Your task to perform on an android device: add a contact in the contacts app Image 0: 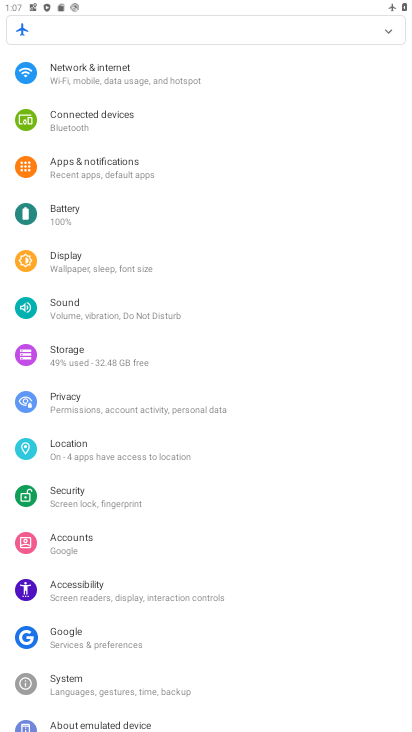
Step 0: press home button
Your task to perform on an android device: add a contact in the contacts app Image 1: 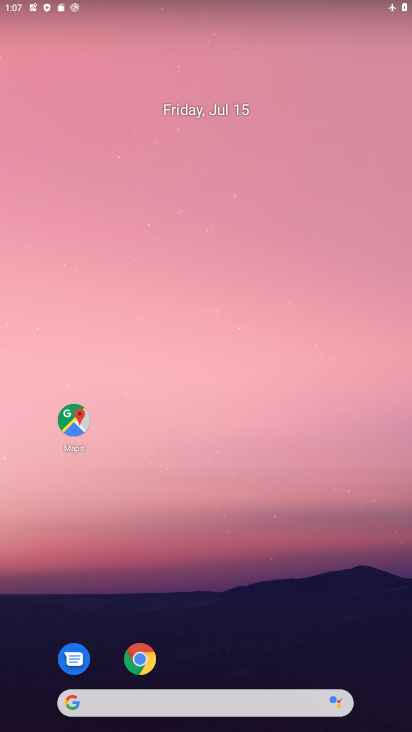
Step 1: drag from (197, 662) to (143, 288)
Your task to perform on an android device: add a contact in the contacts app Image 2: 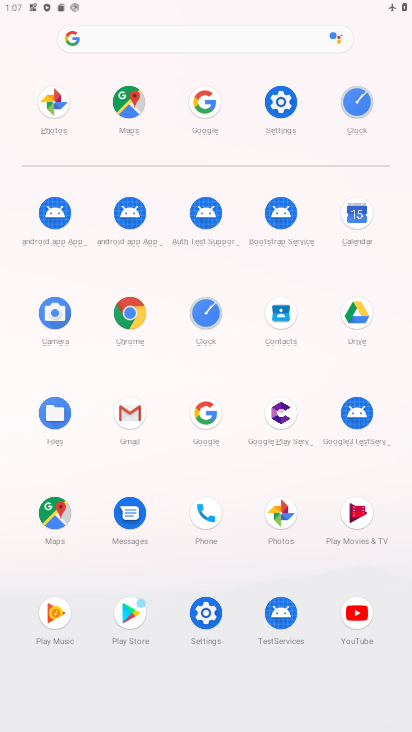
Step 2: click (280, 328)
Your task to perform on an android device: add a contact in the contacts app Image 3: 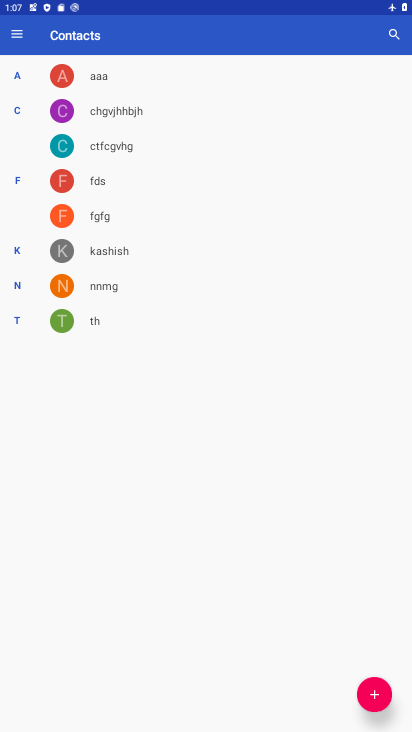
Step 3: click (380, 692)
Your task to perform on an android device: add a contact in the contacts app Image 4: 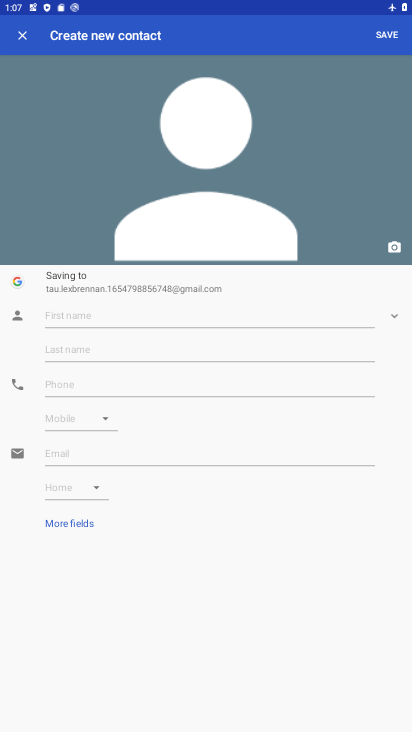
Step 4: click (86, 314)
Your task to perform on an android device: add a contact in the contacts app Image 5: 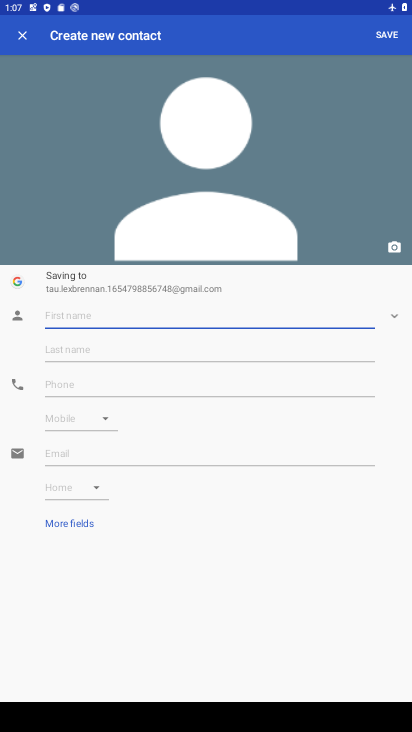
Step 5: type "fghfgh"
Your task to perform on an android device: add a contact in the contacts app Image 6: 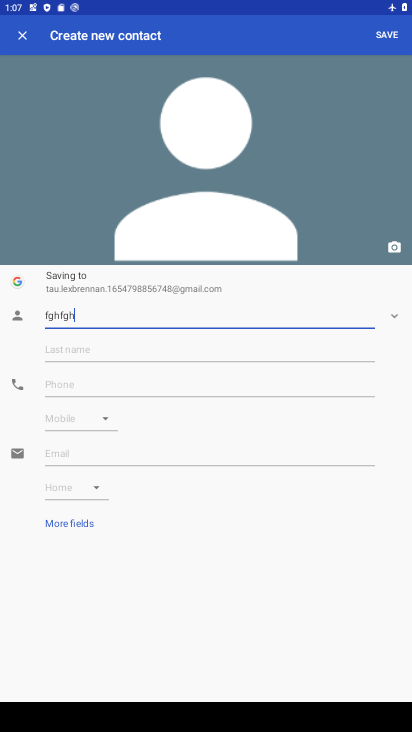
Step 6: click (211, 386)
Your task to perform on an android device: add a contact in the contacts app Image 7: 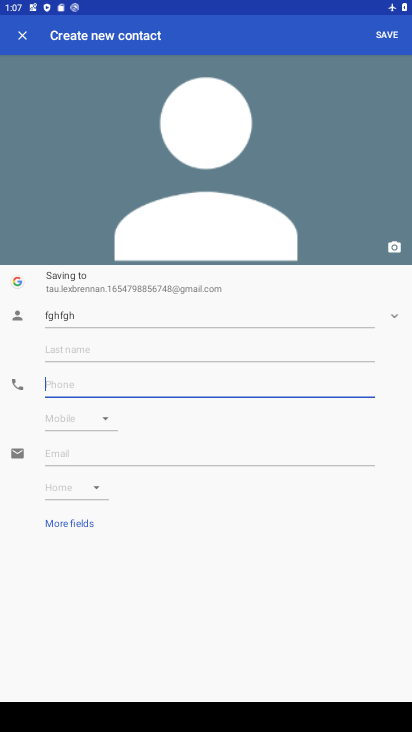
Step 7: type "8"
Your task to perform on an android device: add a contact in the contacts app Image 8: 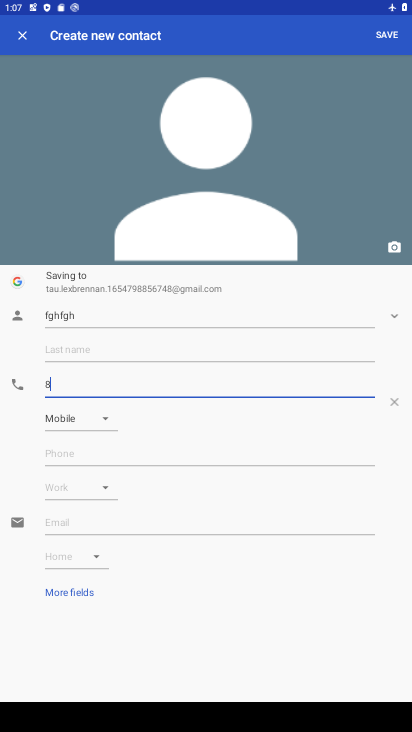
Step 8: type "5686868"
Your task to perform on an android device: add a contact in the contacts app Image 9: 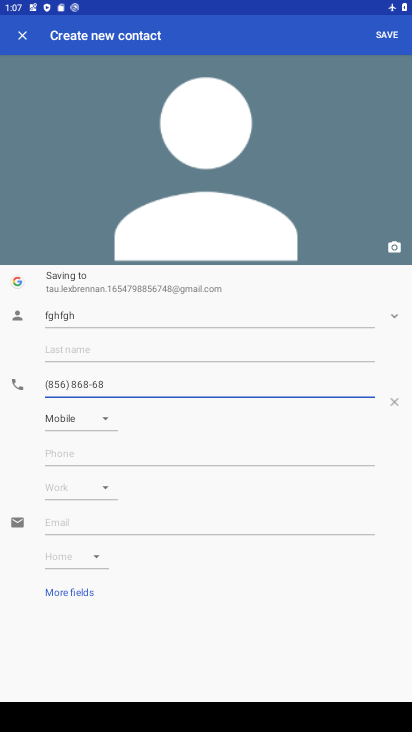
Step 9: click (380, 43)
Your task to perform on an android device: add a contact in the contacts app Image 10: 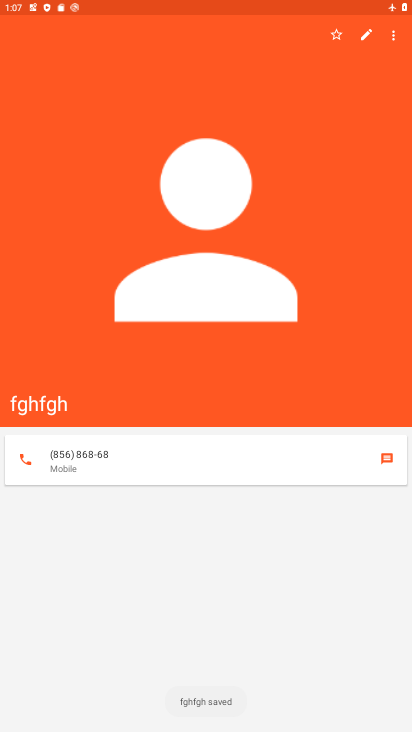
Step 10: task complete